Your task to perform on an android device: turn off notifications settings in the gmail app Image 0: 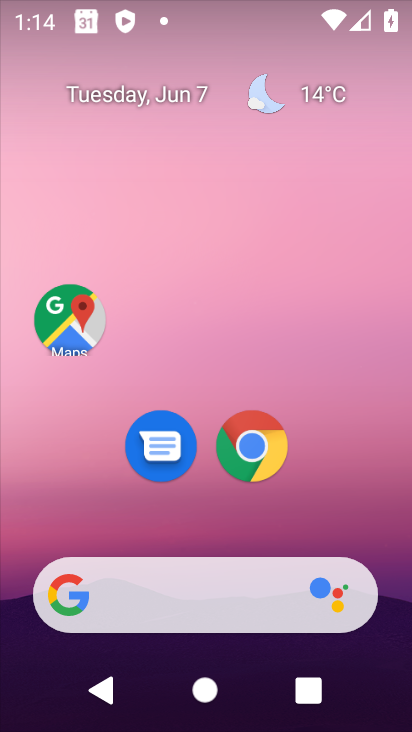
Step 0: drag from (193, 653) to (359, 108)
Your task to perform on an android device: turn off notifications settings in the gmail app Image 1: 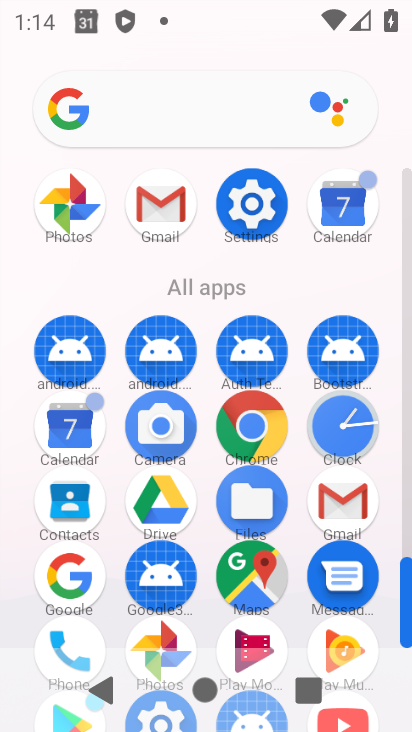
Step 1: click (340, 496)
Your task to perform on an android device: turn off notifications settings in the gmail app Image 2: 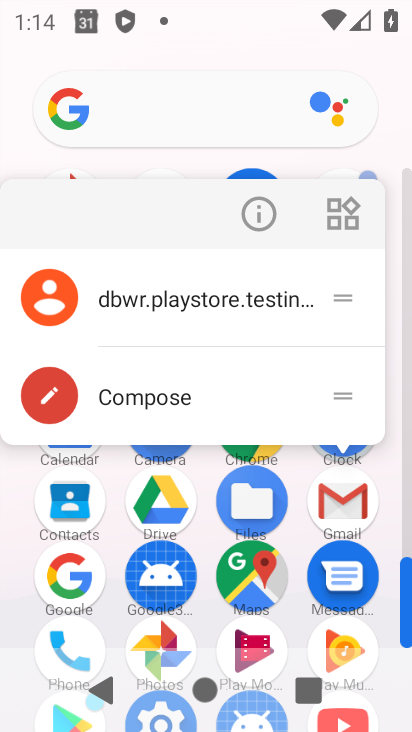
Step 2: click (235, 203)
Your task to perform on an android device: turn off notifications settings in the gmail app Image 3: 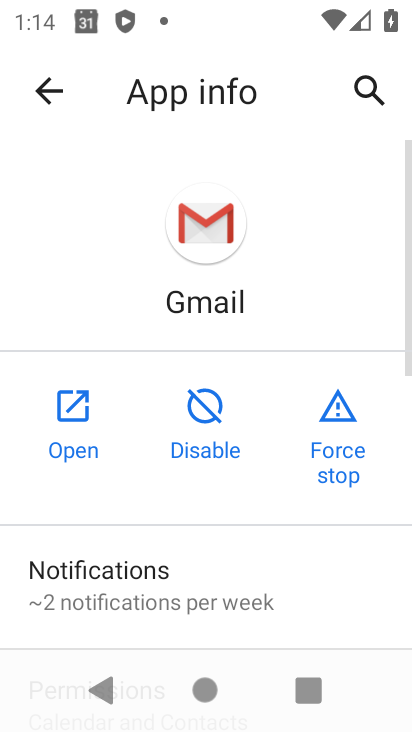
Step 3: click (212, 590)
Your task to perform on an android device: turn off notifications settings in the gmail app Image 4: 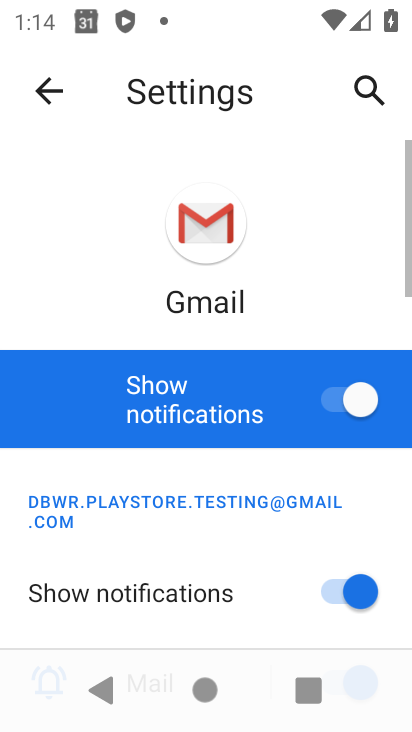
Step 4: click (358, 383)
Your task to perform on an android device: turn off notifications settings in the gmail app Image 5: 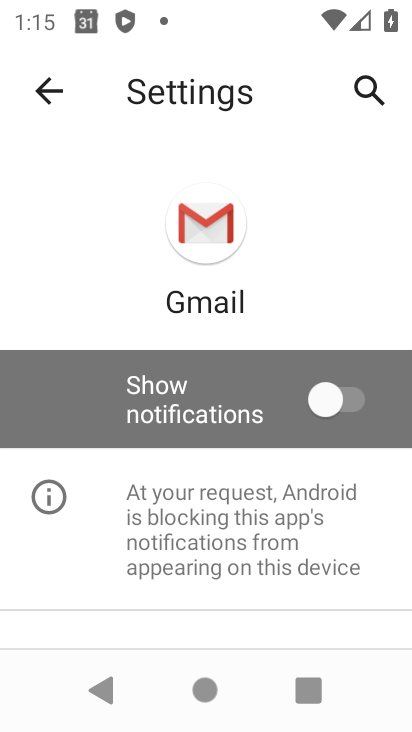
Step 5: press home button
Your task to perform on an android device: turn off notifications settings in the gmail app Image 6: 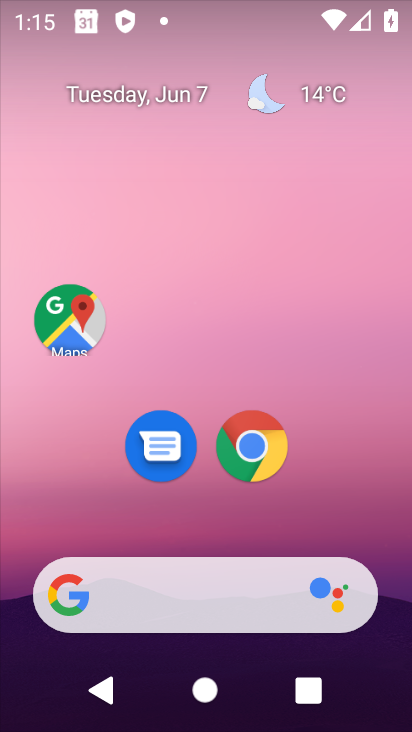
Step 6: drag from (182, 617) to (169, 18)
Your task to perform on an android device: turn off notifications settings in the gmail app Image 7: 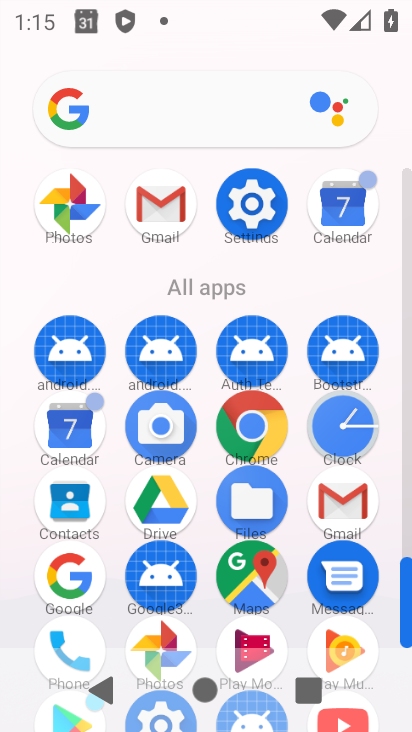
Step 7: click (345, 477)
Your task to perform on an android device: turn off notifications settings in the gmail app Image 8: 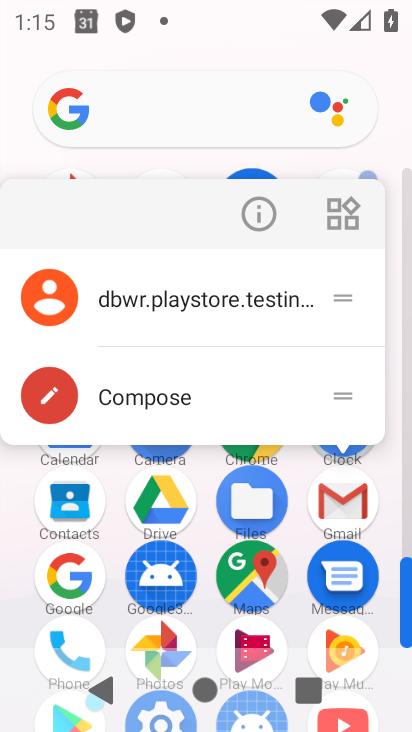
Step 8: click (257, 219)
Your task to perform on an android device: turn off notifications settings in the gmail app Image 9: 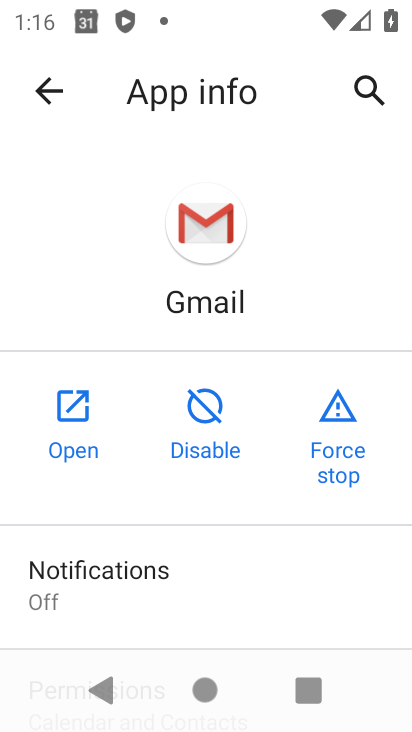
Step 9: click (150, 581)
Your task to perform on an android device: turn off notifications settings in the gmail app Image 10: 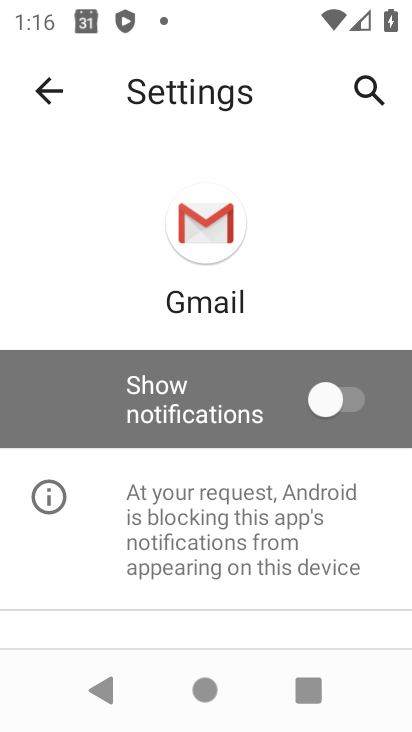
Step 10: task complete